Your task to perform on an android device: turn off data saver in the chrome app Image 0: 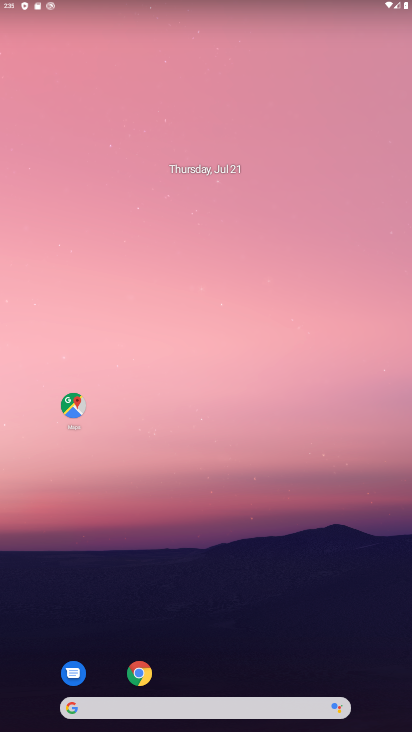
Step 0: click (145, 677)
Your task to perform on an android device: turn off data saver in the chrome app Image 1: 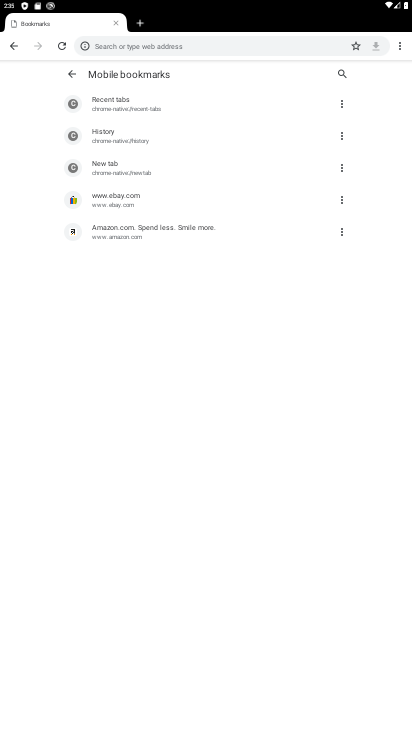
Step 1: task complete